Your task to perform on an android device: Add razer kraken to the cart on bestbuy Image 0: 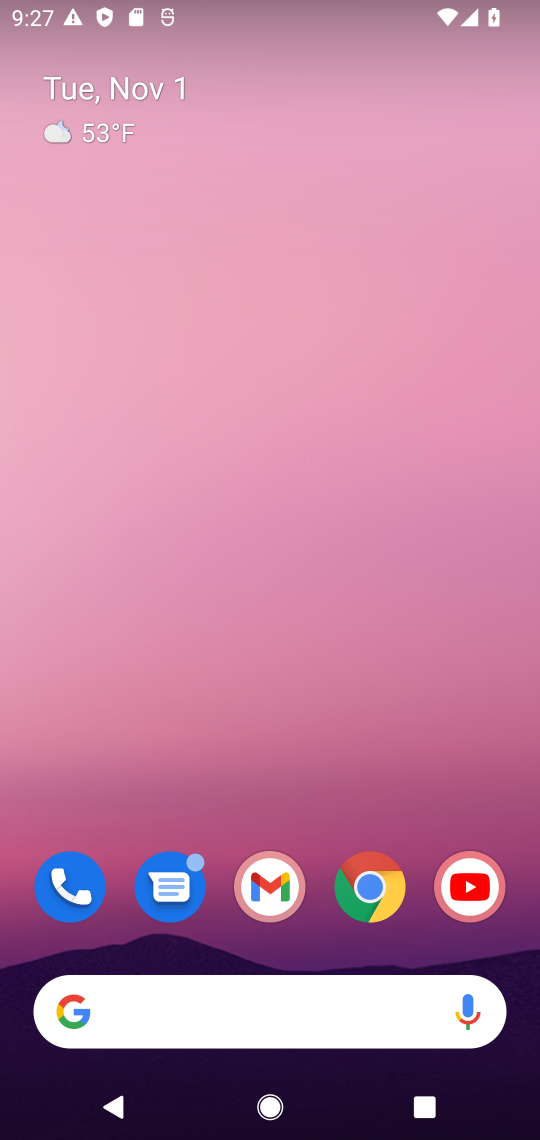
Step 0: drag from (333, 899) to (346, 367)
Your task to perform on an android device: Add razer kraken to the cart on bestbuy Image 1: 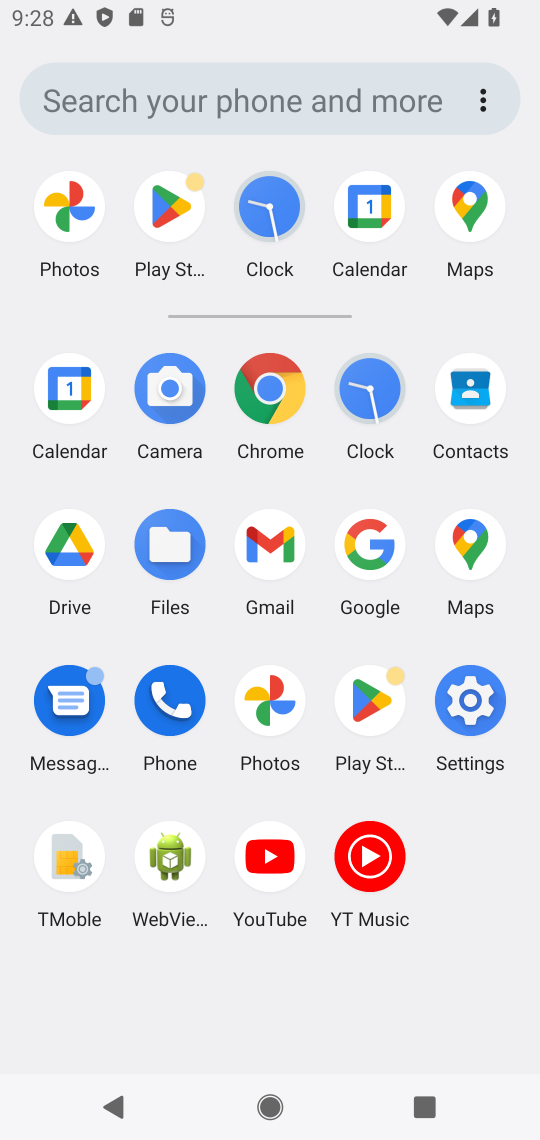
Step 1: click (363, 539)
Your task to perform on an android device: Add razer kraken to the cart on bestbuy Image 2: 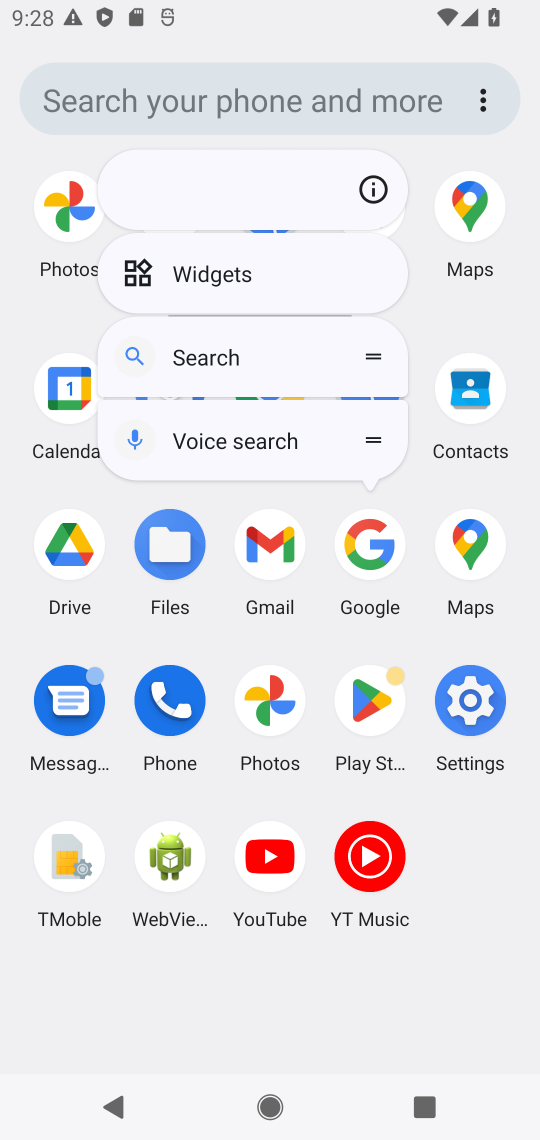
Step 2: click (363, 539)
Your task to perform on an android device: Add razer kraken to the cart on bestbuy Image 3: 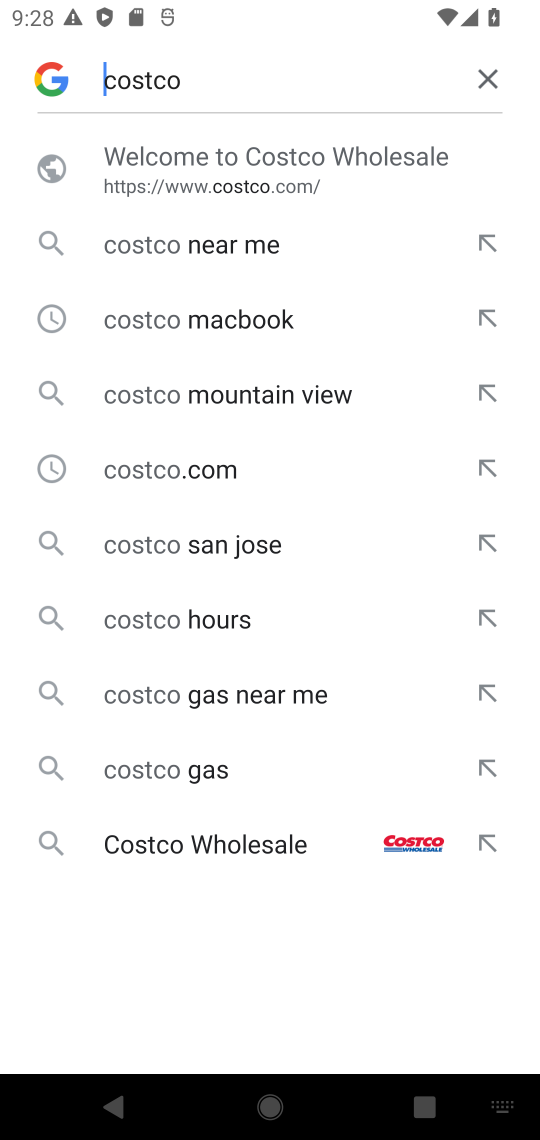
Step 3: click (493, 81)
Your task to perform on an android device: Add razer kraken to the cart on bestbuy Image 4: 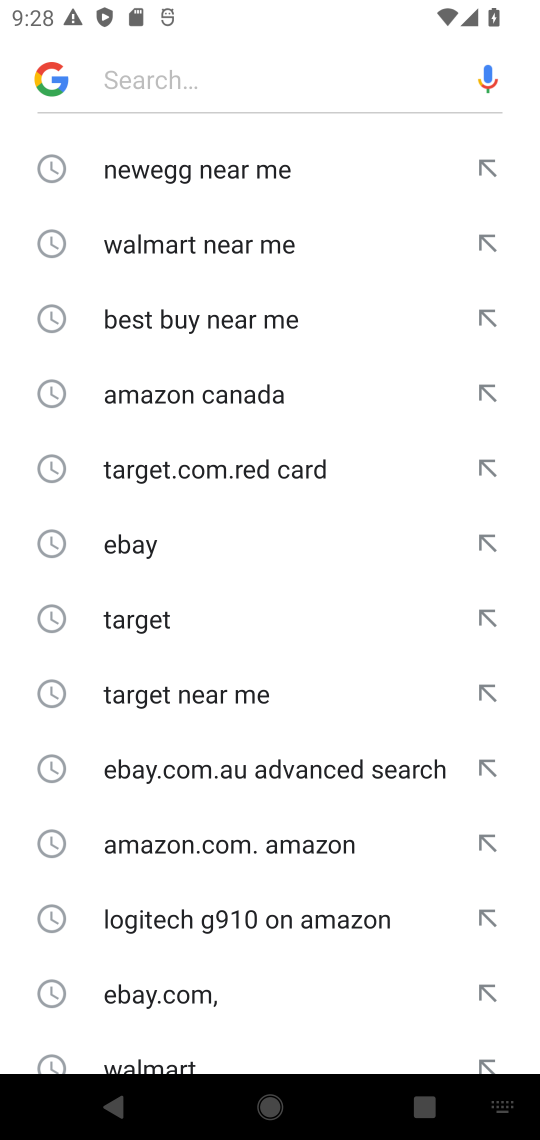
Step 4: click (227, 54)
Your task to perform on an android device: Add razer kraken to the cart on bestbuy Image 5: 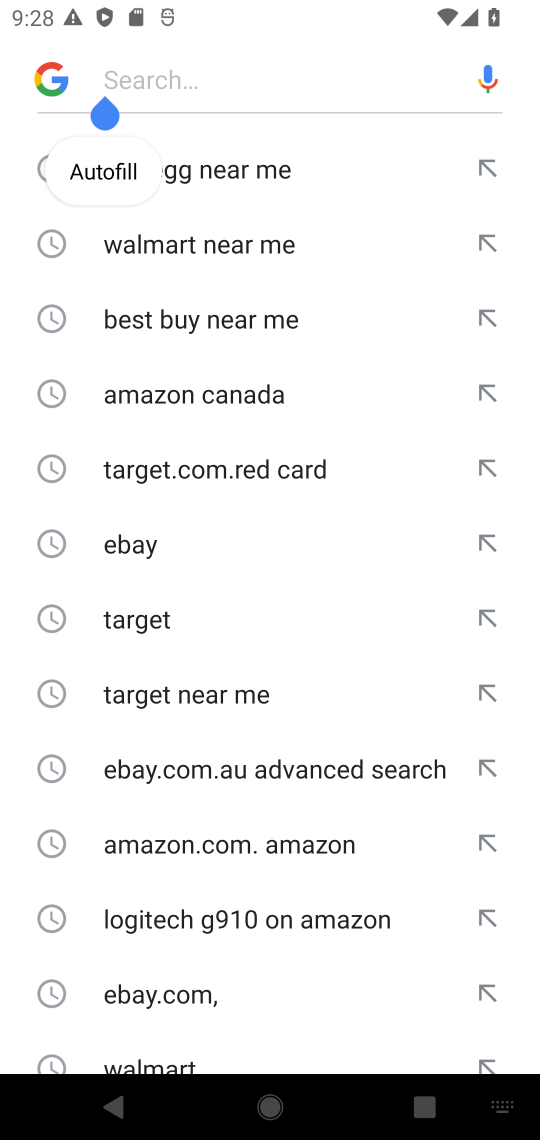
Step 5: type "bestbuy "
Your task to perform on an android device: Add razer kraken to the cart on bestbuy Image 6: 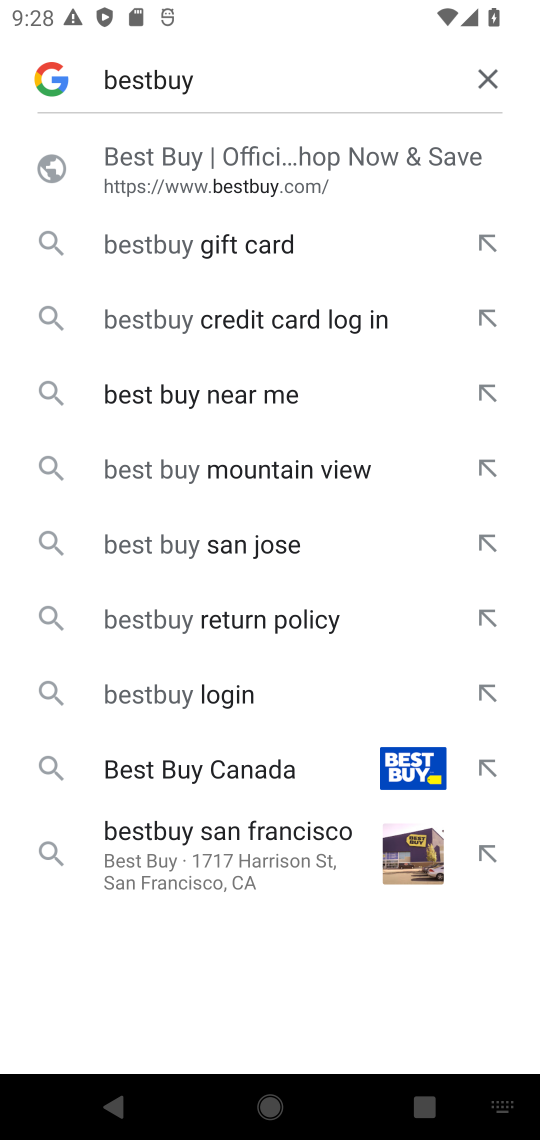
Step 6: click (144, 185)
Your task to perform on an android device: Add razer kraken to the cart on bestbuy Image 7: 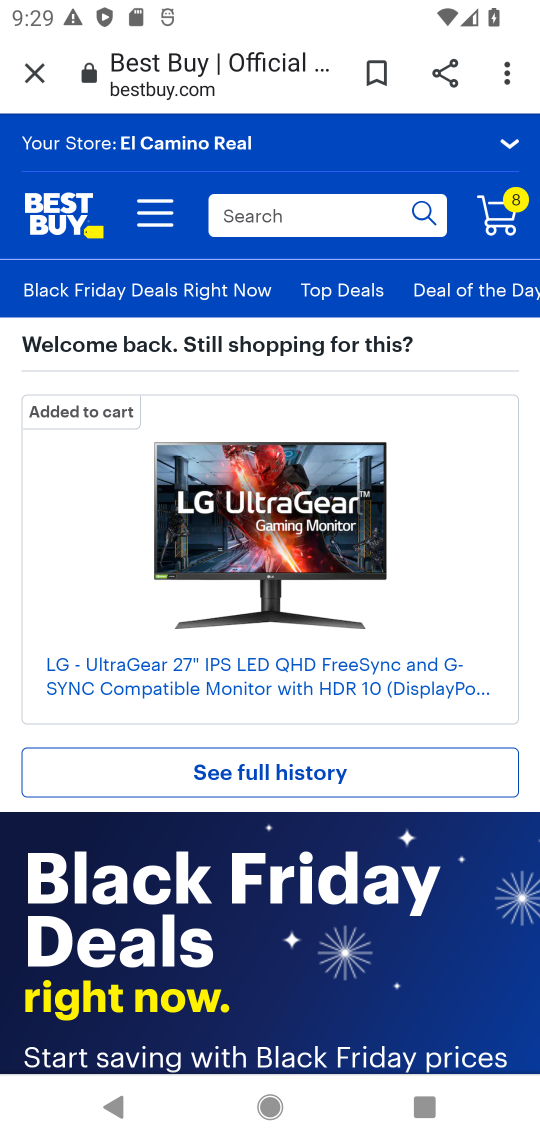
Step 7: click (295, 207)
Your task to perform on an android device: Add razer kraken to the cart on bestbuy Image 8: 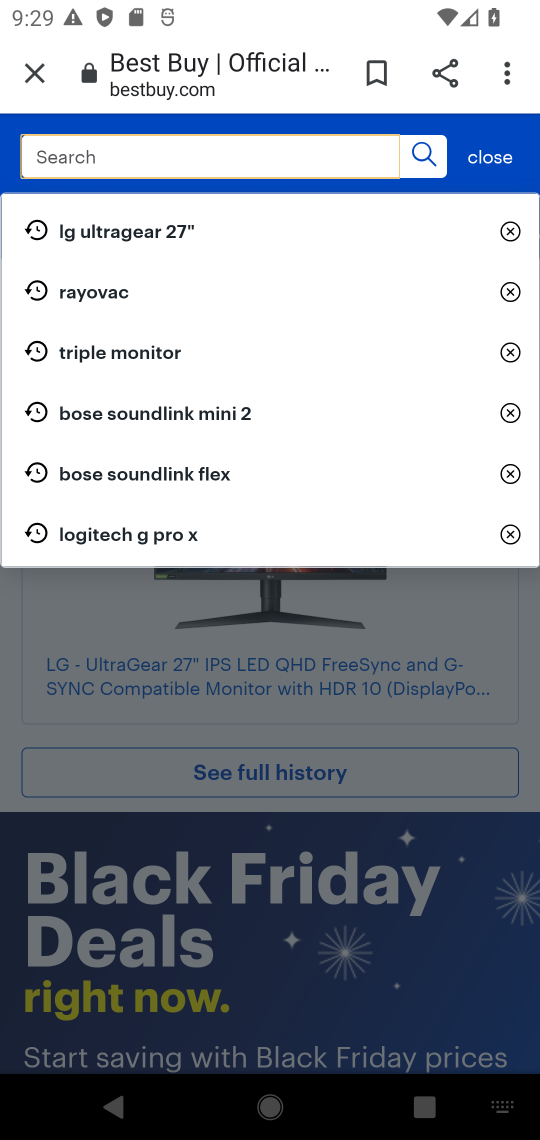
Step 8: click (184, 152)
Your task to perform on an android device: Add razer kraken to the cart on bestbuy Image 9: 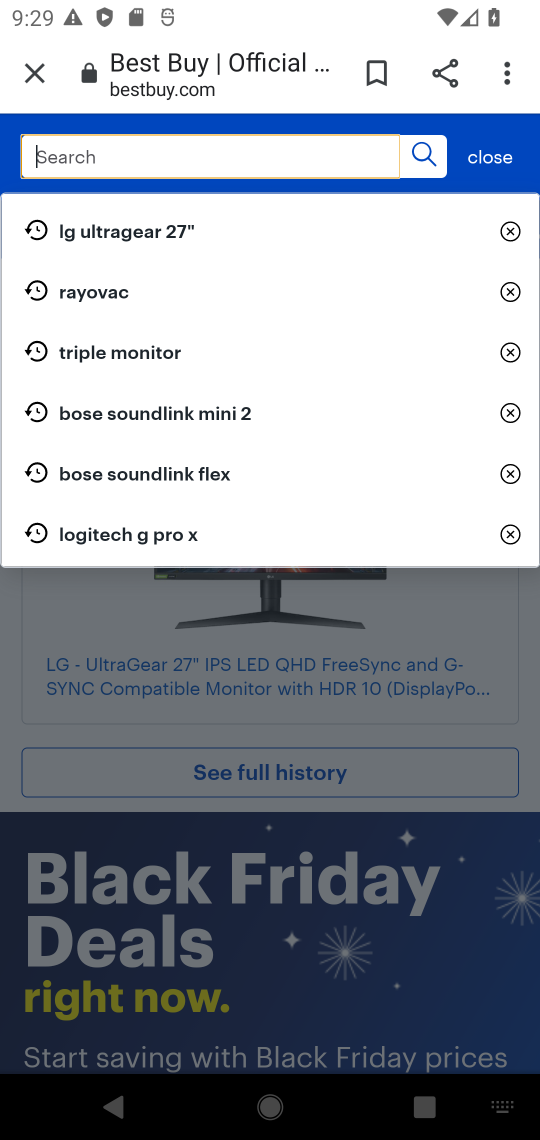
Step 9: type "razer kraken  "
Your task to perform on an android device: Add razer kraken to the cart on bestbuy Image 10: 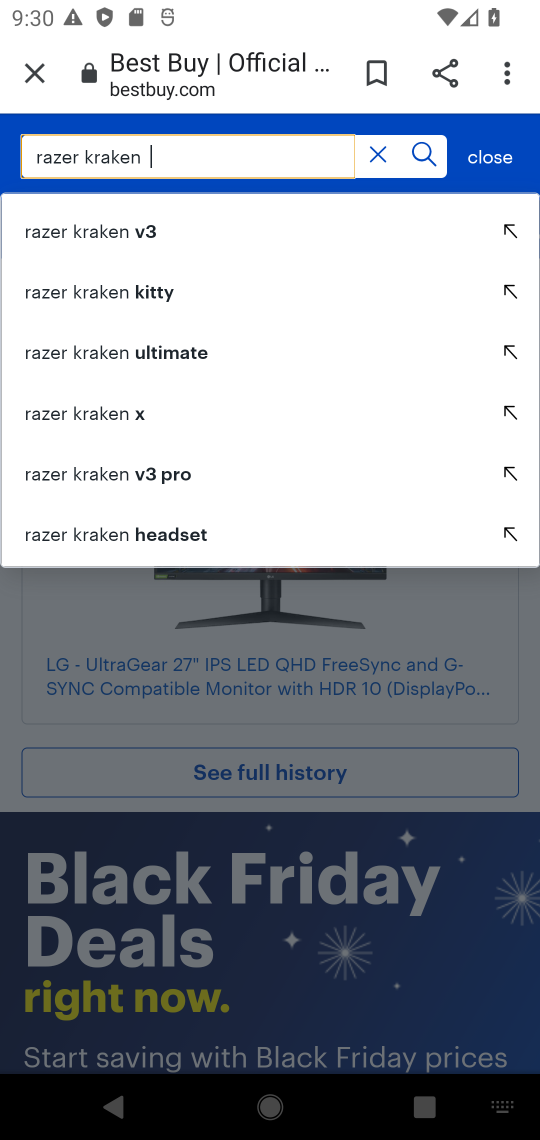
Step 10: click (69, 221)
Your task to perform on an android device: Add razer kraken to the cart on bestbuy Image 11: 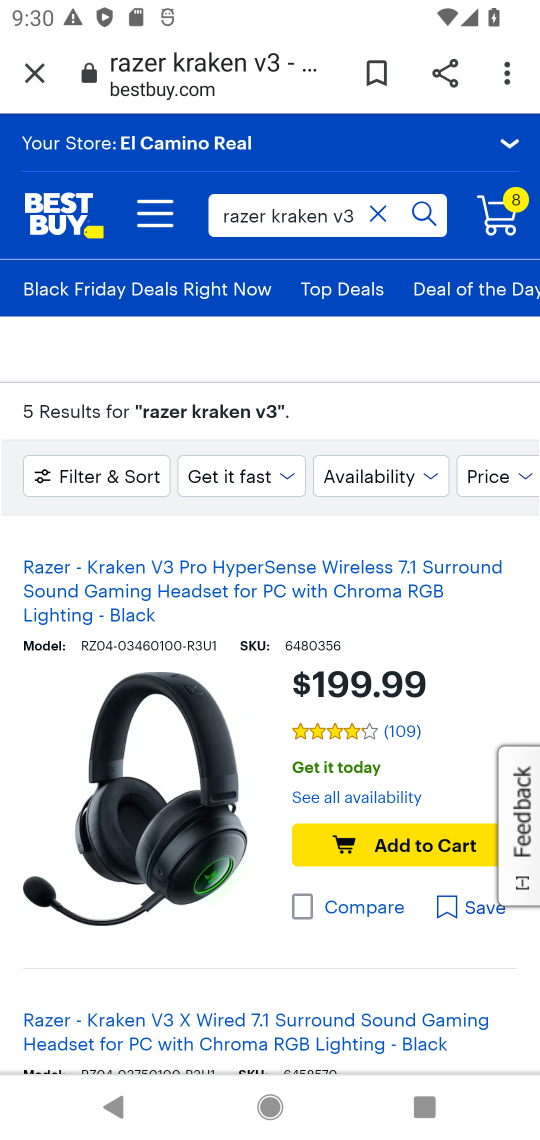
Step 11: click (419, 217)
Your task to perform on an android device: Add razer kraken to the cart on bestbuy Image 12: 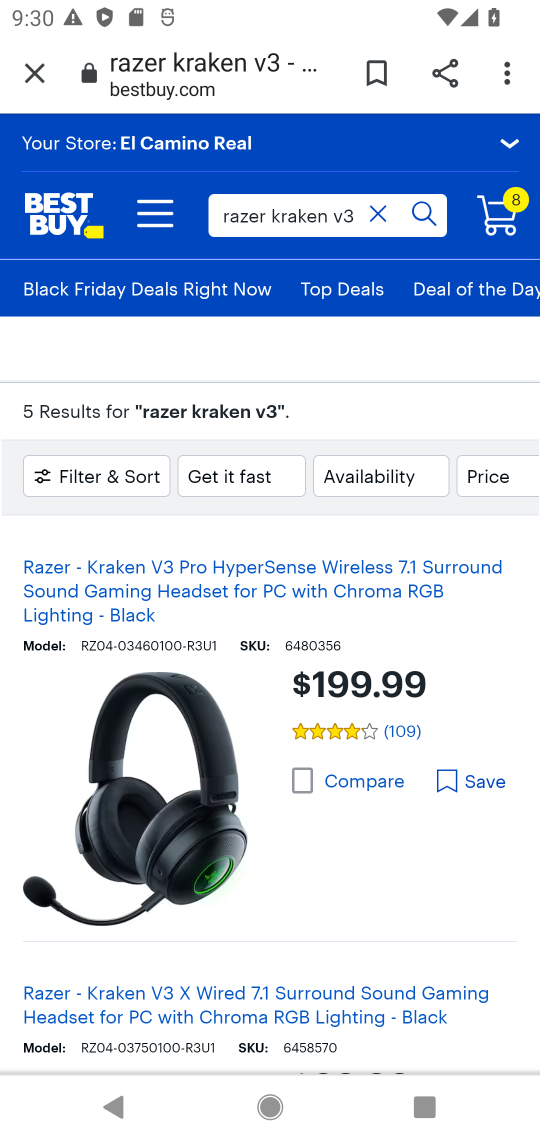
Step 12: drag from (395, 960) to (388, 481)
Your task to perform on an android device: Add razer kraken to the cart on bestbuy Image 13: 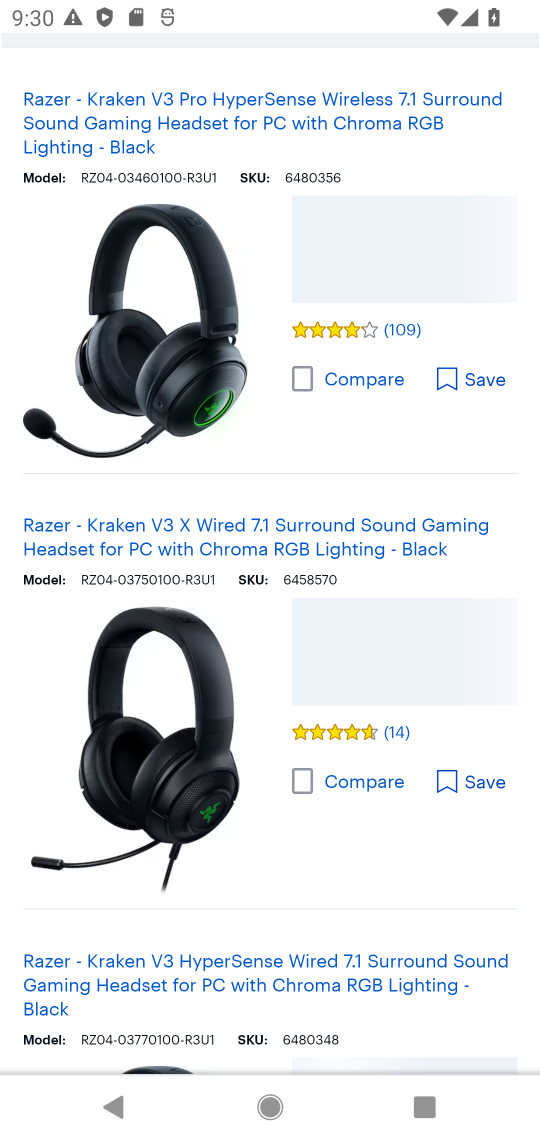
Step 13: drag from (225, 755) to (304, 345)
Your task to perform on an android device: Add razer kraken to the cart on bestbuy Image 14: 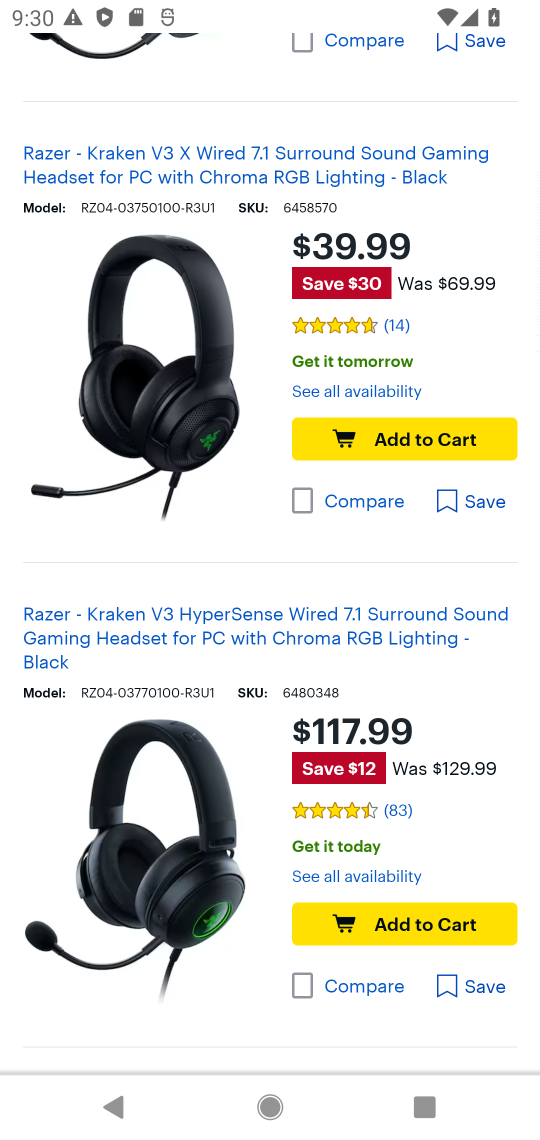
Step 14: click (358, 430)
Your task to perform on an android device: Add razer kraken to the cart on bestbuy Image 15: 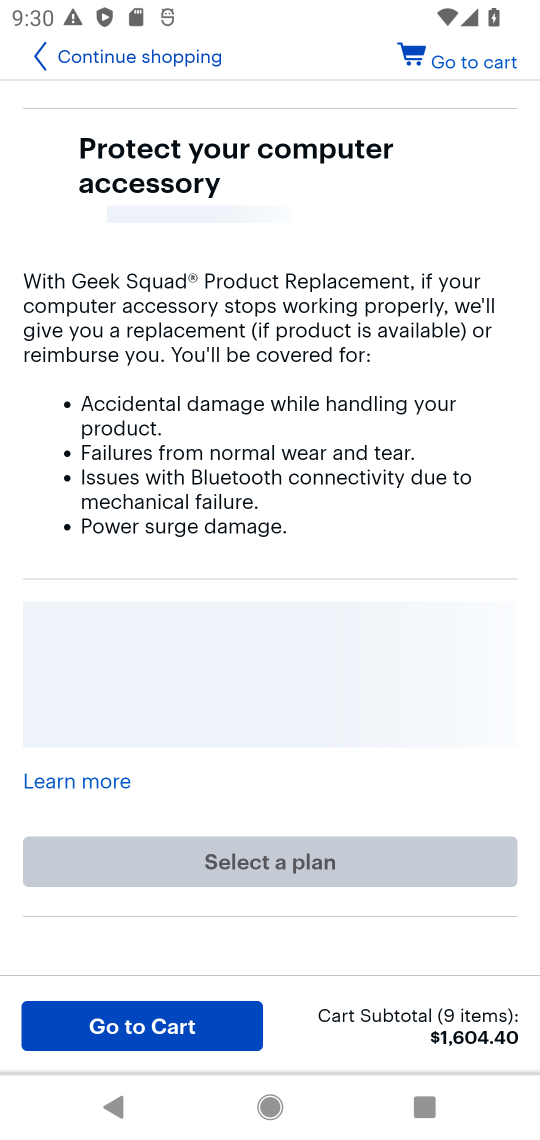
Step 15: task complete